Your task to perform on an android device: Go to internet settings Image 0: 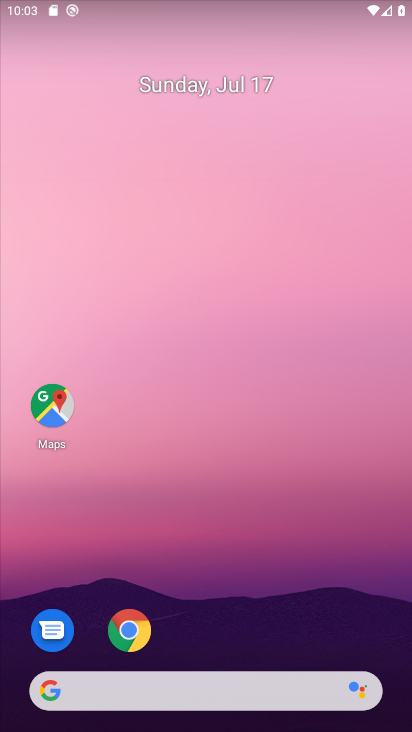
Step 0: drag from (248, 635) to (323, 114)
Your task to perform on an android device: Go to internet settings Image 1: 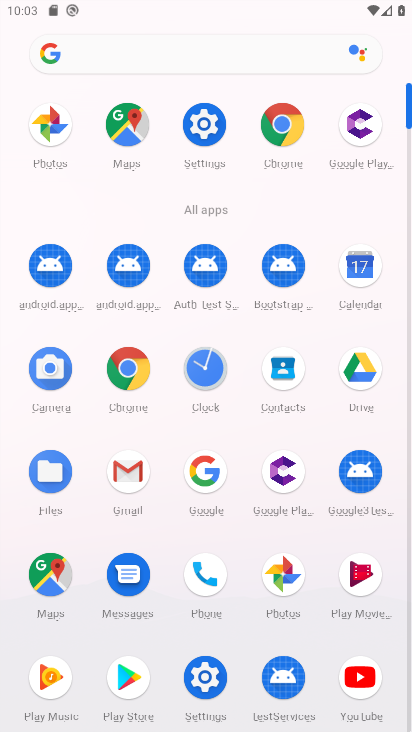
Step 1: click (203, 119)
Your task to perform on an android device: Go to internet settings Image 2: 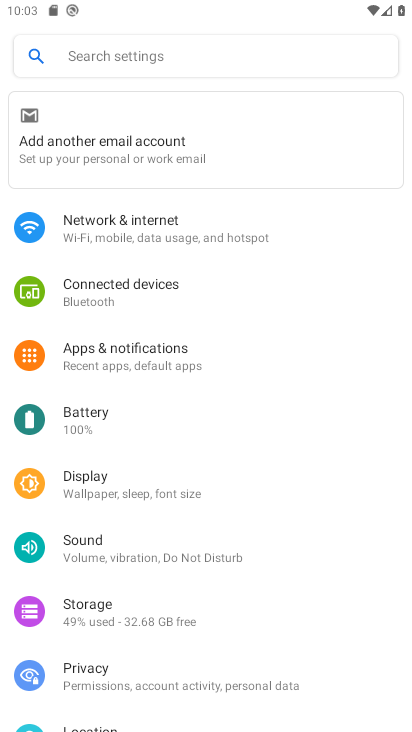
Step 2: click (190, 239)
Your task to perform on an android device: Go to internet settings Image 3: 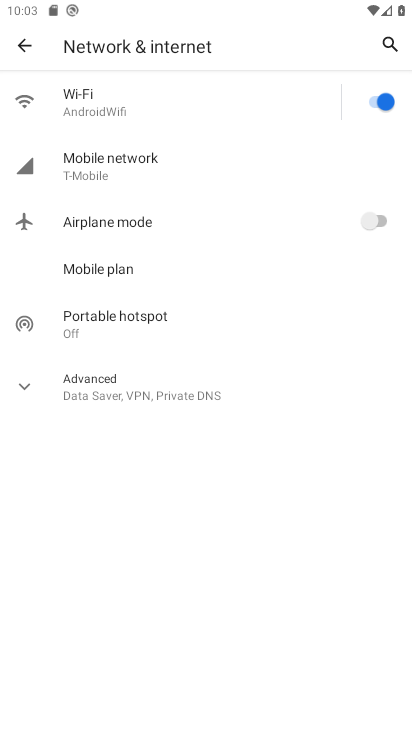
Step 3: task complete